Your task to perform on an android device: toggle improve location accuracy Image 0: 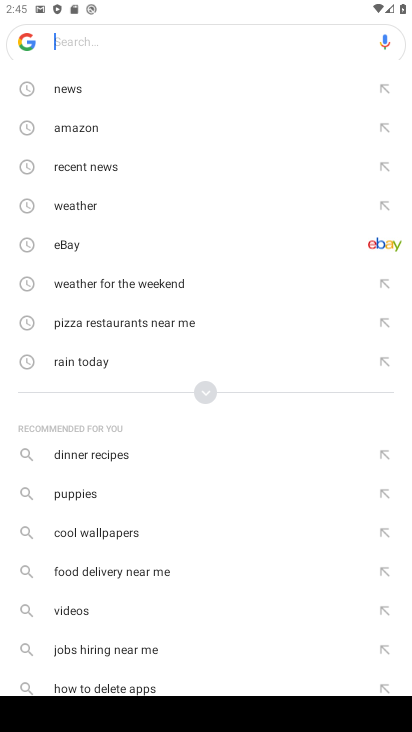
Step 0: press home button
Your task to perform on an android device: toggle improve location accuracy Image 1: 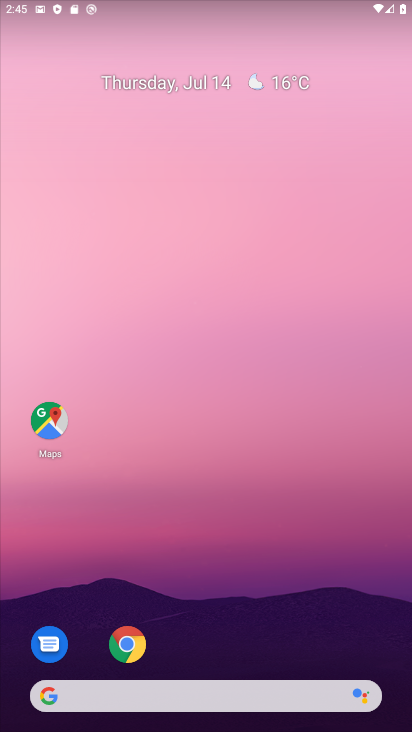
Step 1: drag from (268, 646) to (188, 75)
Your task to perform on an android device: toggle improve location accuracy Image 2: 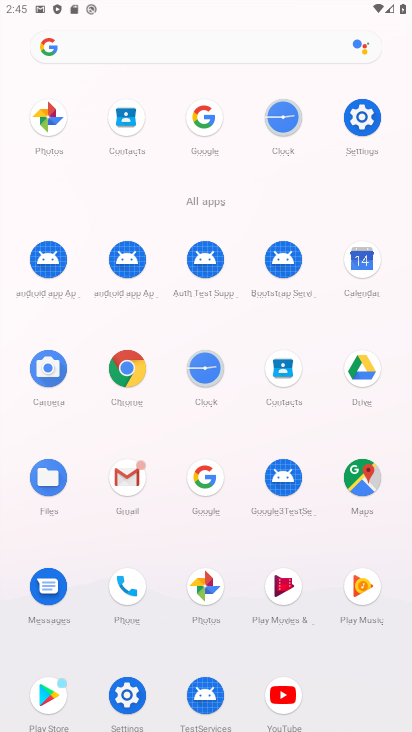
Step 2: click (370, 131)
Your task to perform on an android device: toggle improve location accuracy Image 3: 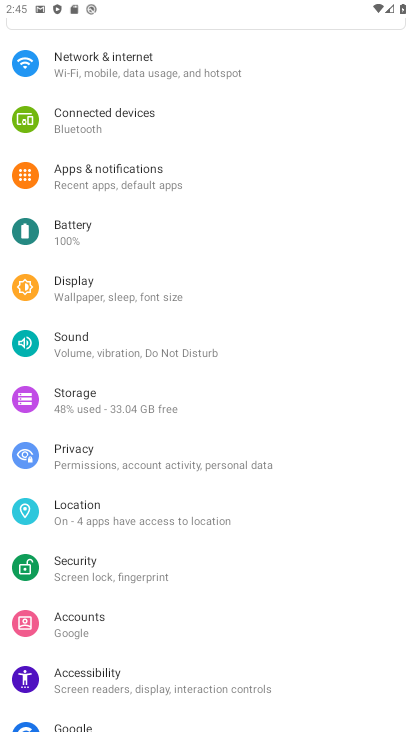
Step 3: click (161, 504)
Your task to perform on an android device: toggle improve location accuracy Image 4: 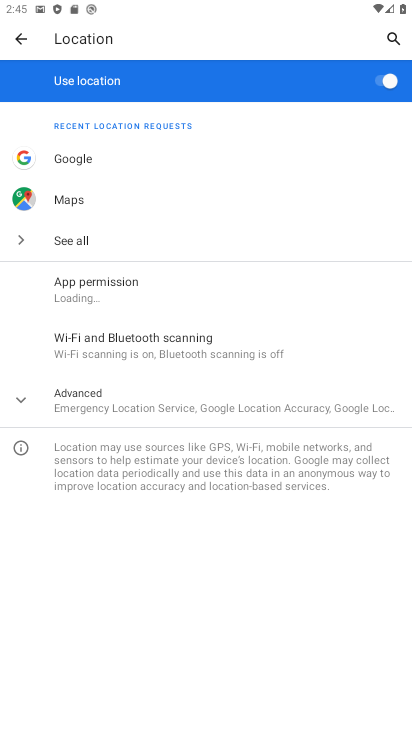
Step 4: click (148, 403)
Your task to perform on an android device: toggle improve location accuracy Image 5: 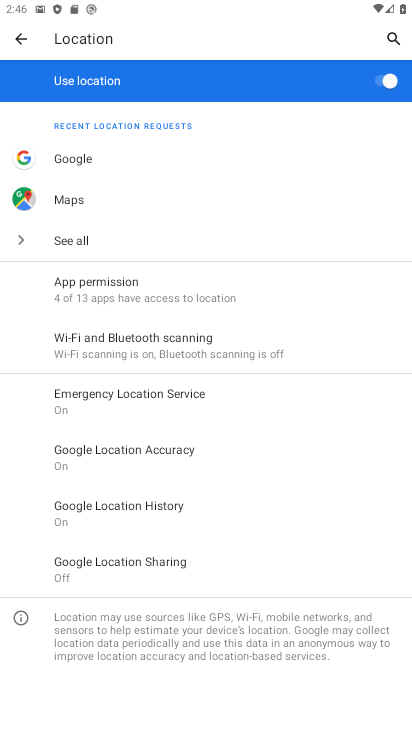
Step 5: click (177, 455)
Your task to perform on an android device: toggle improve location accuracy Image 6: 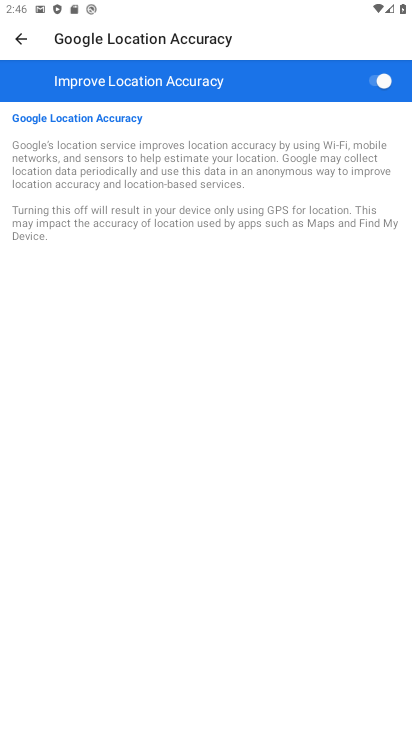
Step 6: click (361, 78)
Your task to perform on an android device: toggle improve location accuracy Image 7: 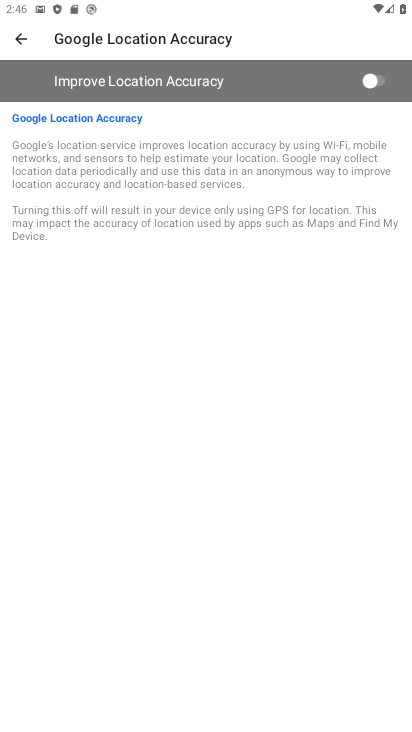
Step 7: task complete